Your task to perform on an android device: see sites visited before in the chrome app Image 0: 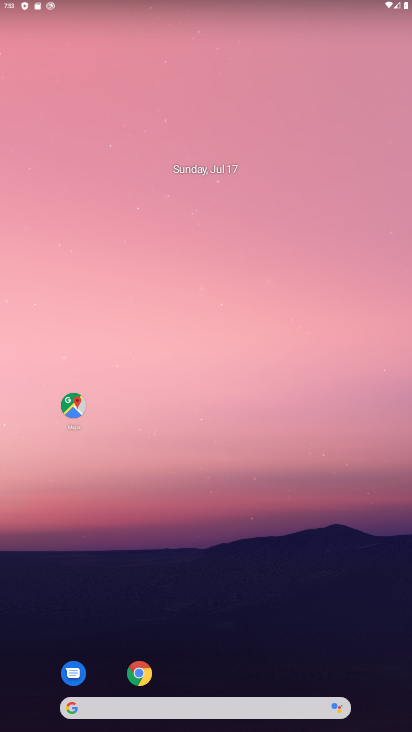
Step 0: drag from (245, 606) to (30, 189)
Your task to perform on an android device: see sites visited before in the chrome app Image 1: 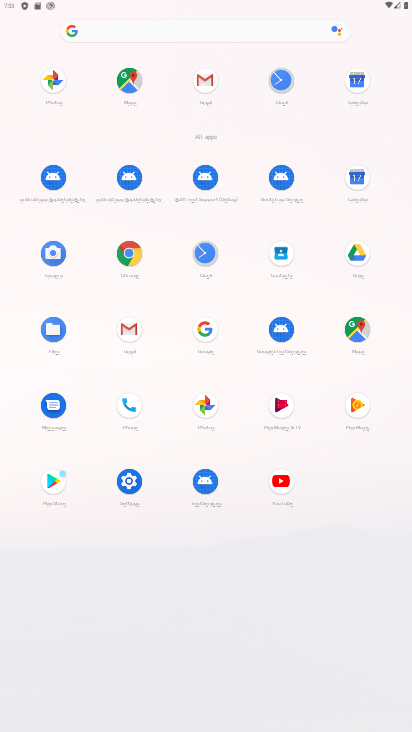
Step 1: click (135, 256)
Your task to perform on an android device: see sites visited before in the chrome app Image 2: 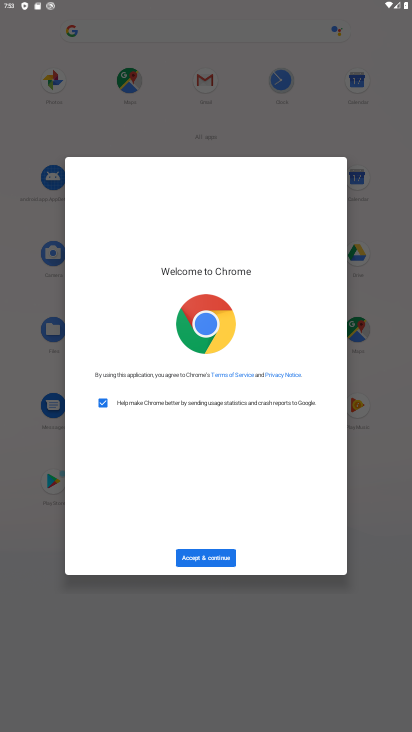
Step 2: click (191, 545)
Your task to perform on an android device: see sites visited before in the chrome app Image 3: 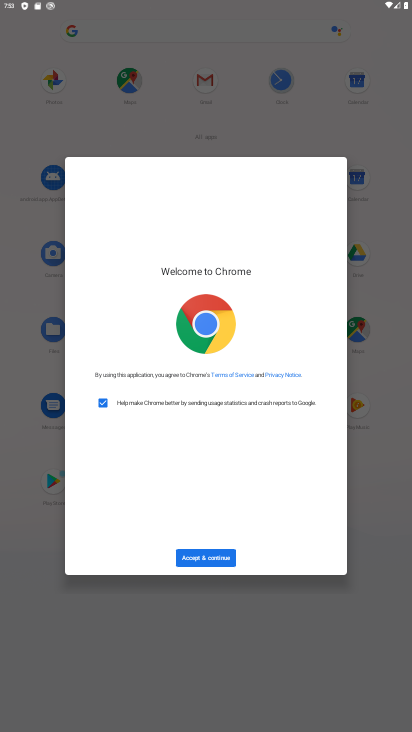
Step 3: click (190, 552)
Your task to perform on an android device: see sites visited before in the chrome app Image 4: 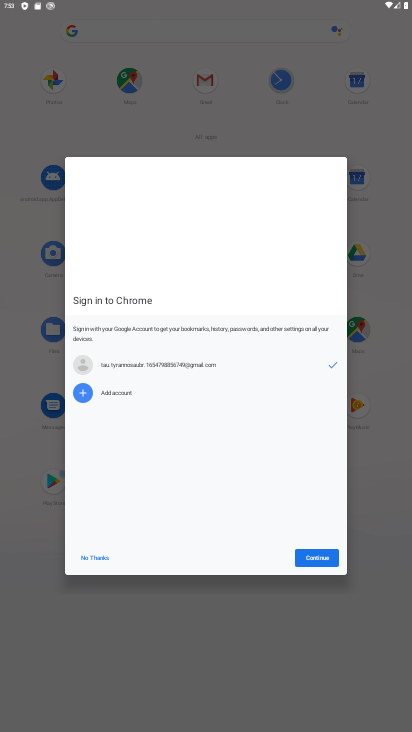
Step 4: click (92, 552)
Your task to perform on an android device: see sites visited before in the chrome app Image 5: 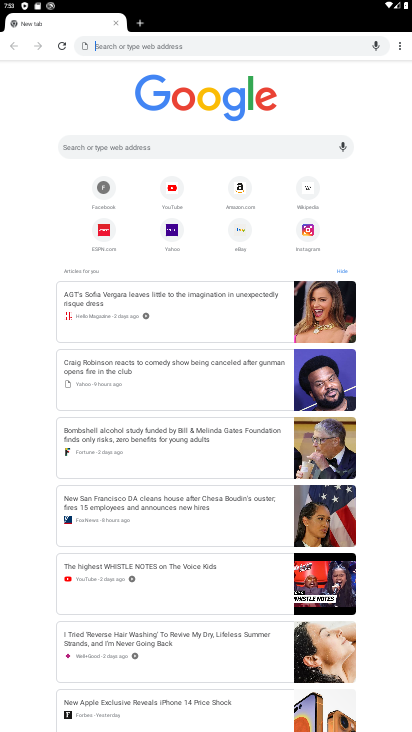
Step 5: drag from (403, 47) to (323, 122)
Your task to perform on an android device: see sites visited before in the chrome app Image 6: 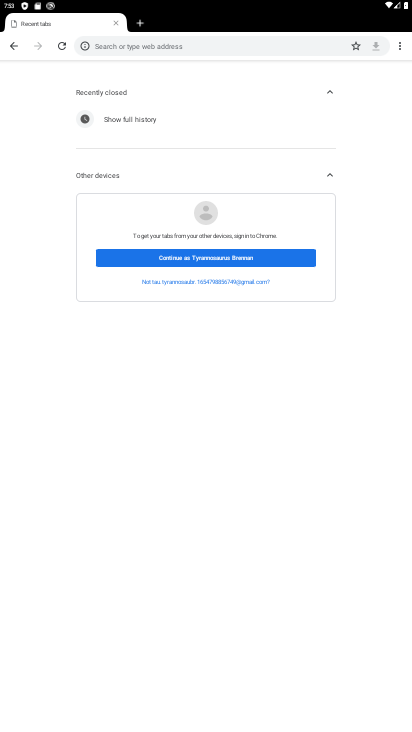
Step 6: click (197, 257)
Your task to perform on an android device: see sites visited before in the chrome app Image 7: 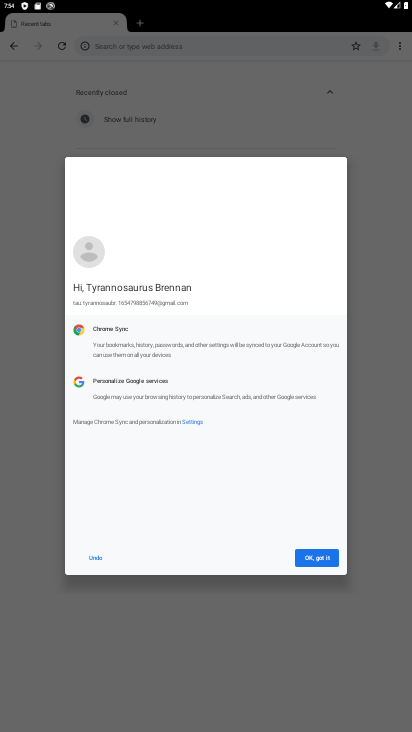
Step 7: click (304, 551)
Your task to perform on an android device: see sites visited before in the chrome app Image 8: 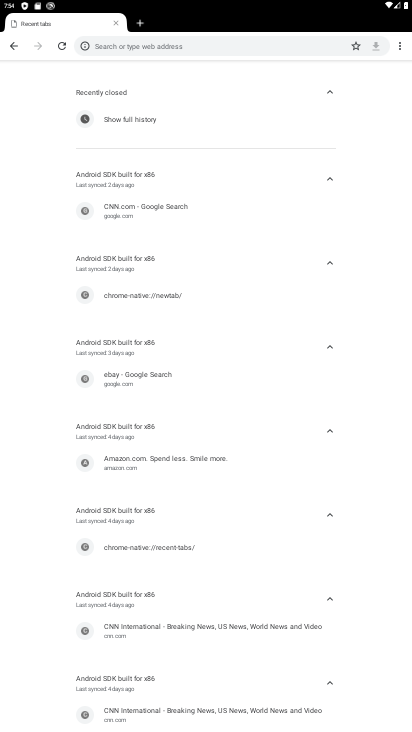
Step 8: task complete